Your task to perform on an android device: turn on translation in the chrome app Image 0: 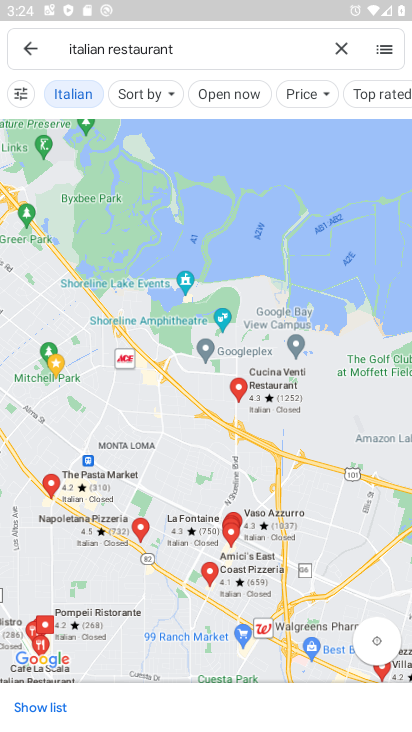
Step 0: press home button
Your task to perform on an android device: turn on translation in the chrome app Image 1: 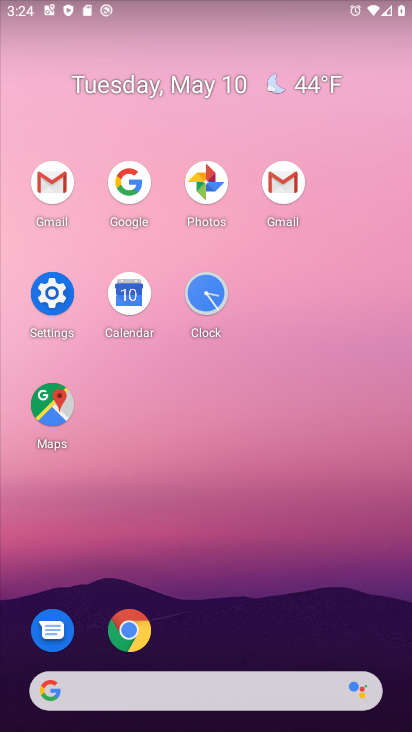
Step 1: click (126, 630)
Your task to perform on an android device: turn on translation in the chrome app Image 2: 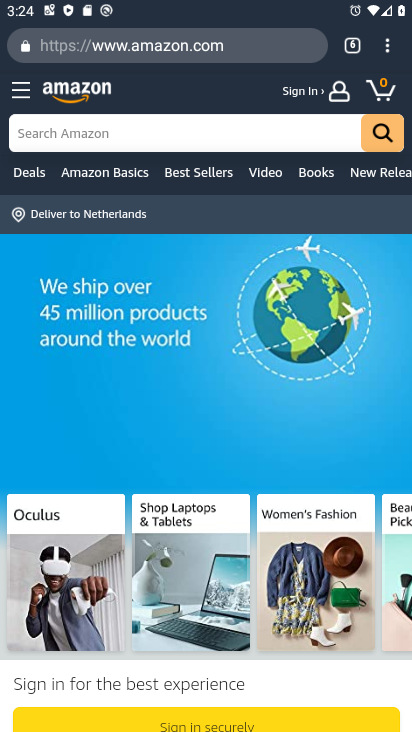
Step 2: click (392, 50)
Your task to perform on an android device: turn on translation in the chrome app Image 3: 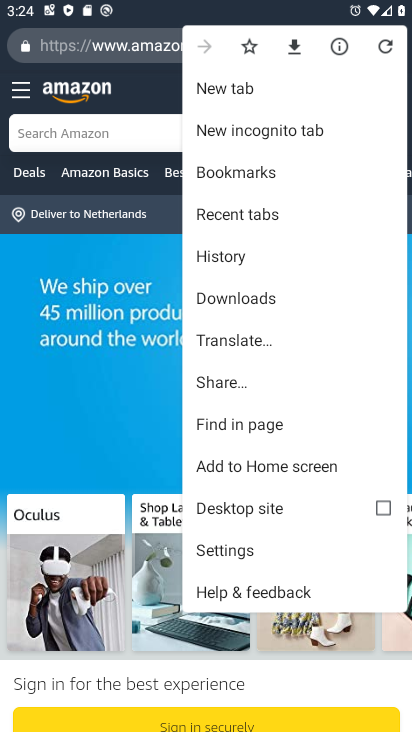
Step 3: click (250, 556)
Your task to perform on an android device: turn on translation in the chrome app Image 4: 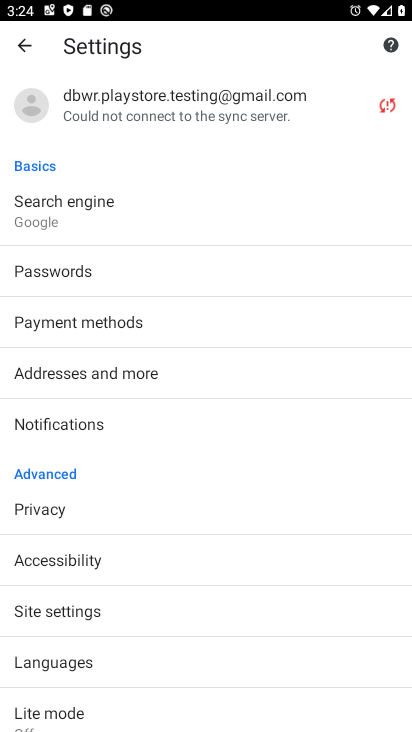
Step 4: click (133, 665)
Your task to perform on an android device: turn on translation in the chrome app Image 5: 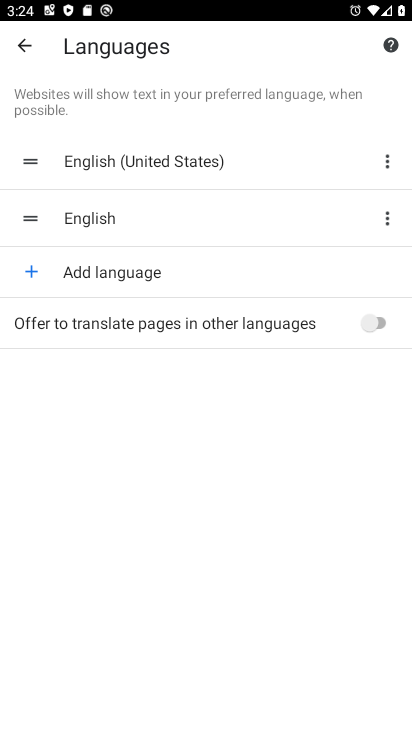
Step 5: click (373, 332)
Your task to perform on an android device: turn on translation in the chrome app Image 6: 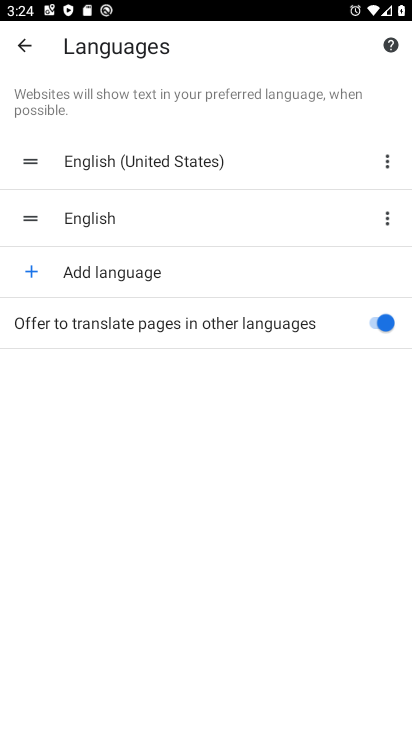
Step 6: task complete